Your task to perform on an android device: Turn off the flashlight Image 0: 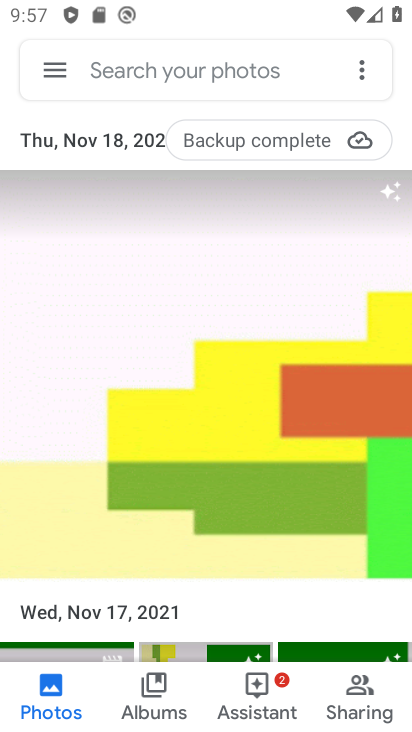
Step 0: press home button
Your task to perform on an android device: Turn off the flashlight Image 1: 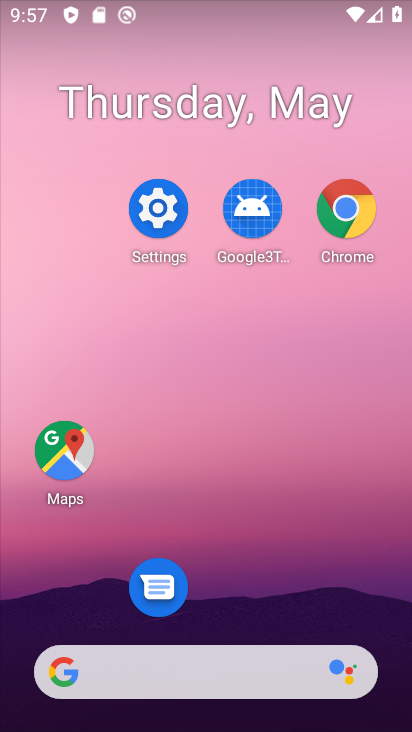
Step 1: drag from (187, 621) to (274, 0)
Your task to perform on an android device: Turn off the flashlight Image 2: 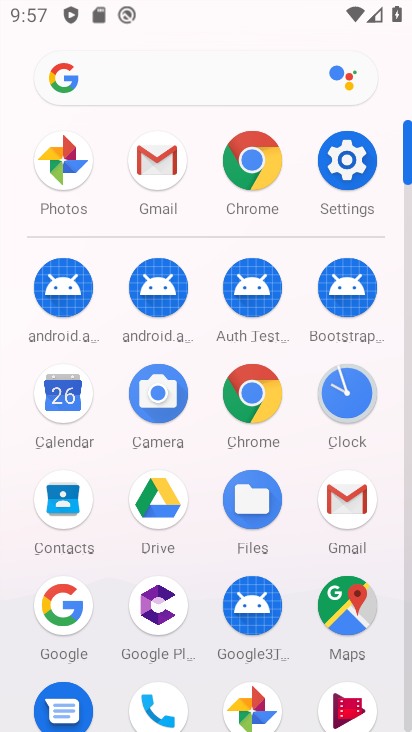
Step 2: click (350, 157)
Your task to perform on an android device: Turn off the flashlight Image 3: 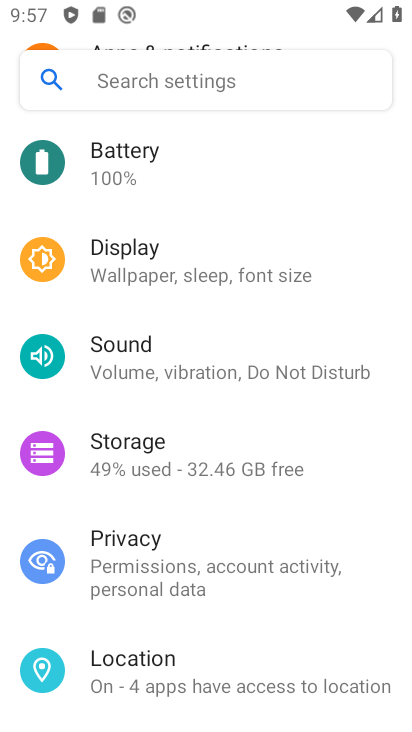
Step 3: task complete